Your task to perform on an android device: Go to battery settings Image 0: 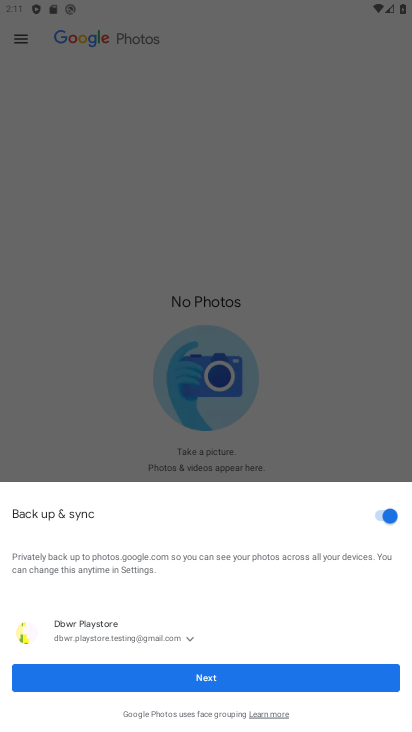
Step 0: press home button
Your task to perform on an android device: Go to battery settings Image 1: 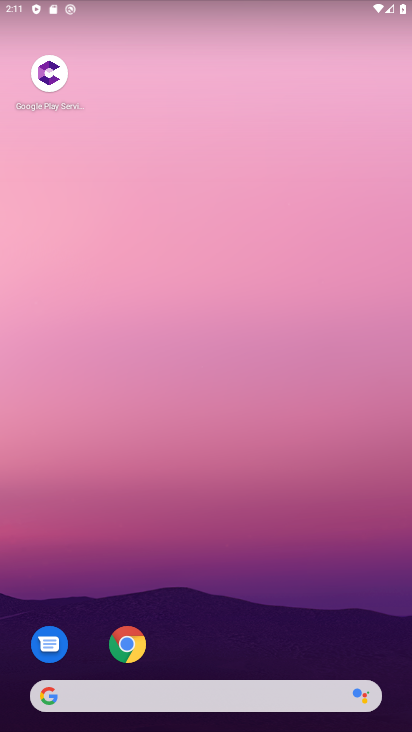
Step 1: drag from (342, 638) to (226, 19)
Your task to perform on an android device: Go to battery settings Image 2: 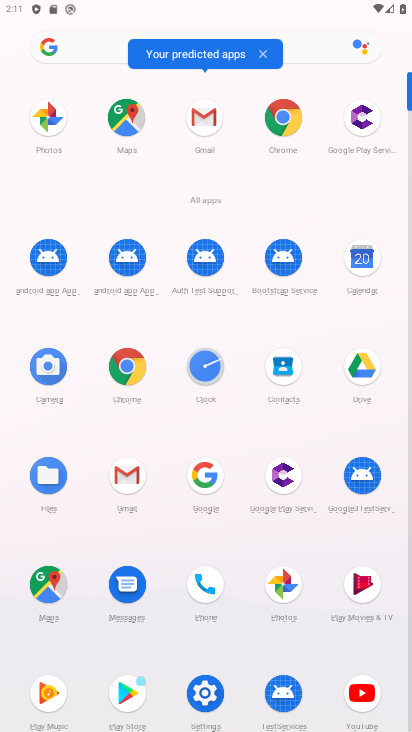
Step 2: click (207, 692)
Your task to perform on an android device: Go to battery settings Image 3: 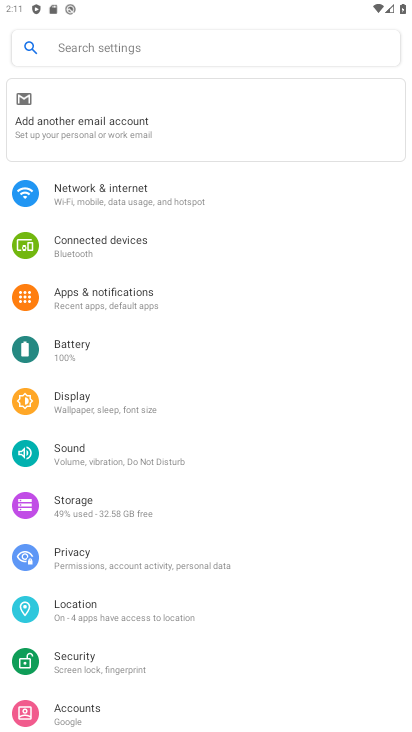
Step 3: click (83, 337)
Your task to perform on an android device: Go to battery settings Image 4: 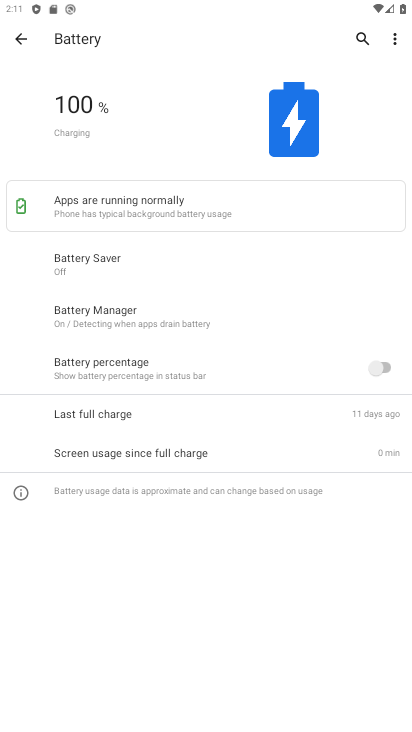
Step 4: task complete